Your task to perform on an android device: Go to Reddit.com Image 0: 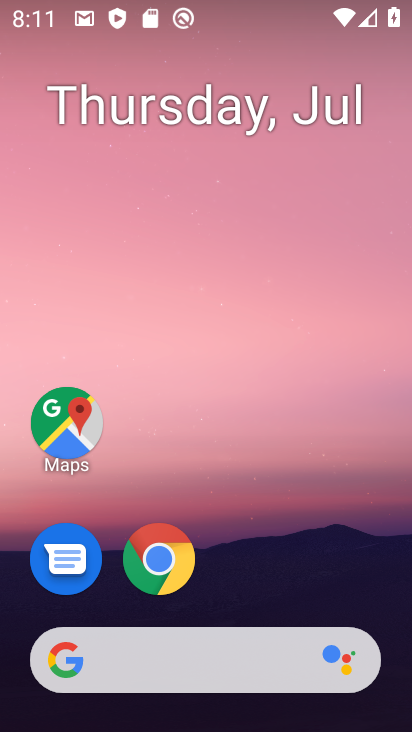
Step 0: click (171, 565)
Your task to perform on an android device: Go to Reddit.com Image 1: 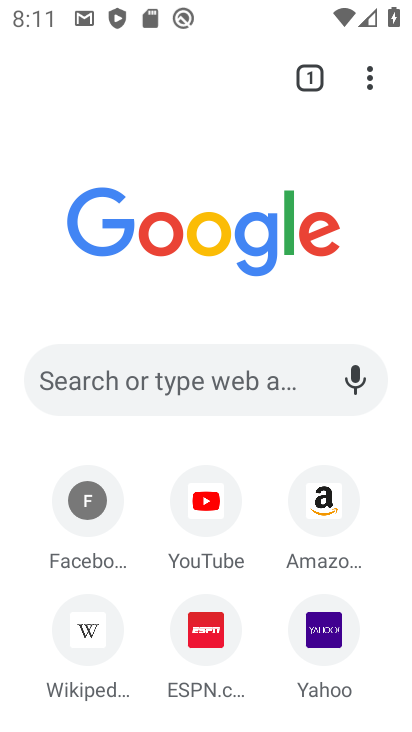
Step 1: click (137, 391)
Your task to perform on an android device: Go to Reddit.com Image 2: 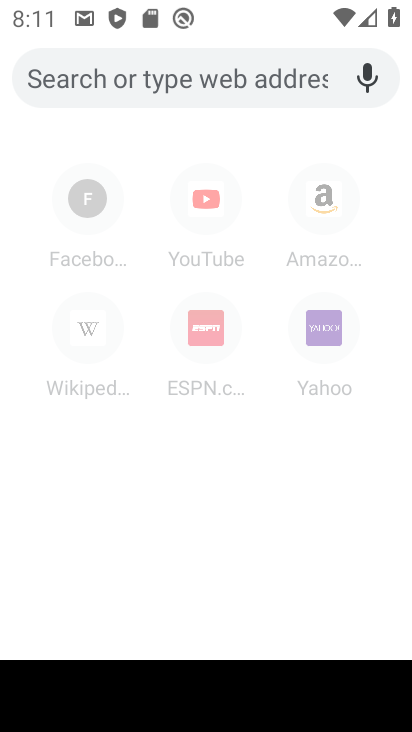
Step 2: type "reddit.com"
Your task to perform on an android device: Go to Reddit.com Image 3: 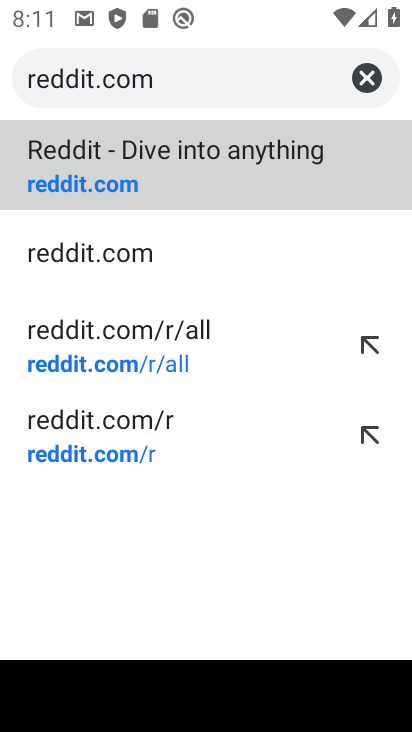
Step 3: click (264, 171)
Your task to perform on an android device: Go to Reddit.com Image 4: 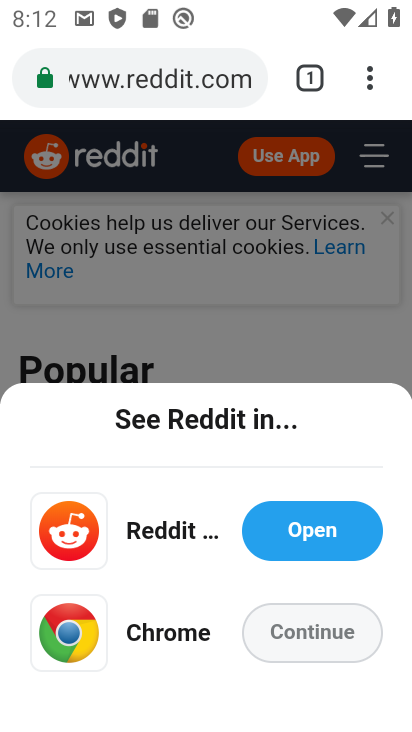
Step 4: task complete